Your task to perform on an android device: Search for Italian restaurants on Maps Image 0: 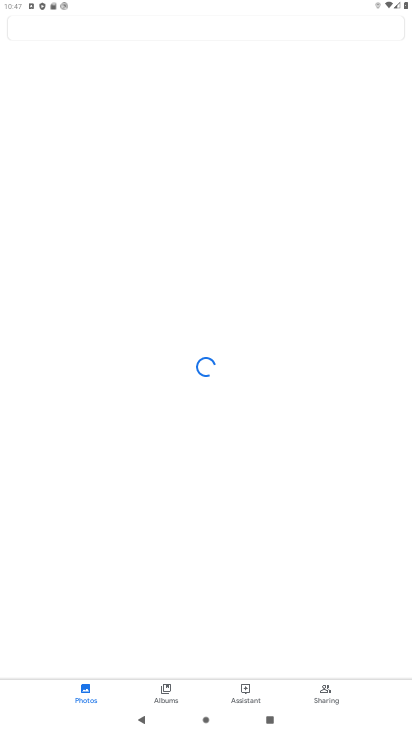
Step 0: press home button
Your task to perform on an android device: Search for Italian restaurants on Maps Image 1: 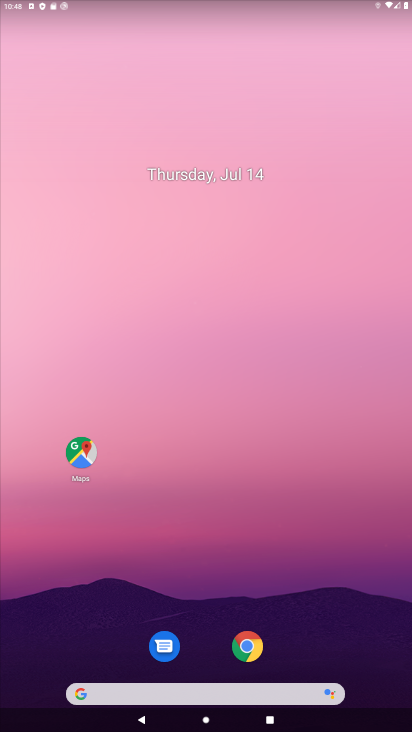
Step 1: click (99, 462)
Your task to perform on an android device: Search for Italian restaurants on Maps Image 2: 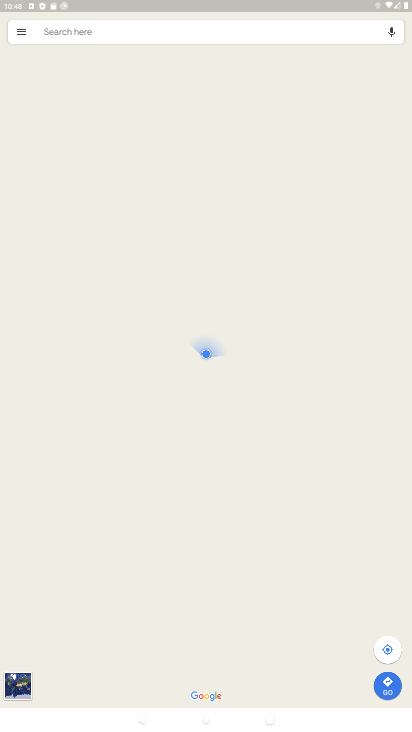
Step 2: click (114, 40)
Your task to perform on an android device: Search for Italian restaurants on Maps Image 3: 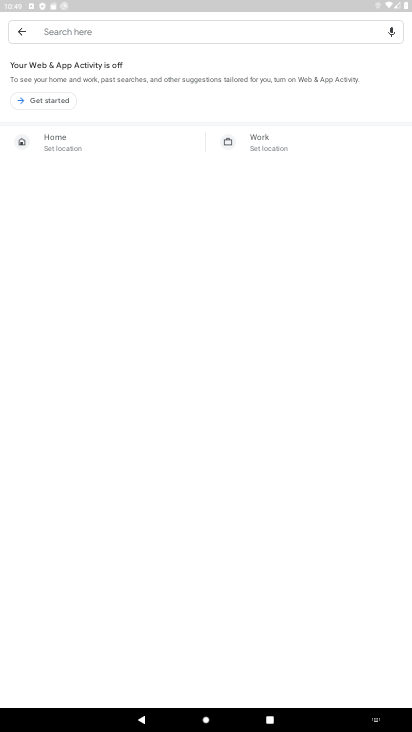
Step 3: click (18, 30)
Your task to perform on an android device: Search for Italian restaurants on Maps Image 4: 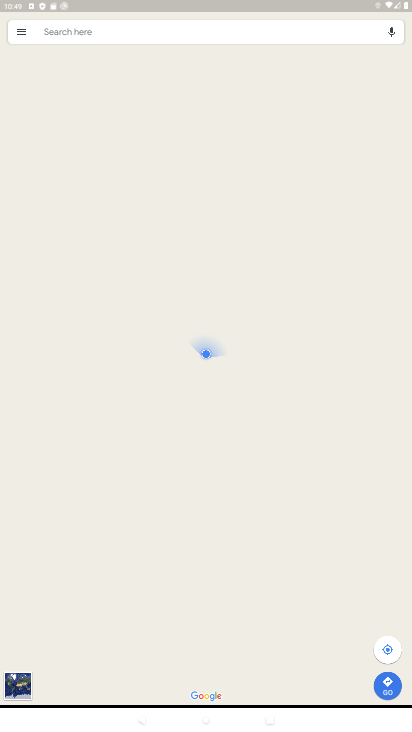
Step 4: click (106, 30)
Your task to perform on an android device: Search for Italian restaurants on Maps Image 5: 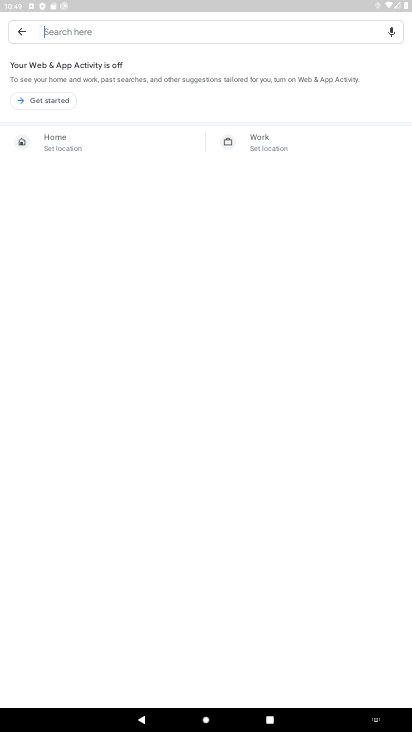
Step 5: type "Italian restaurants"
Your task to perform on an android device: Search for Italian restaurants on Maps Image 6: 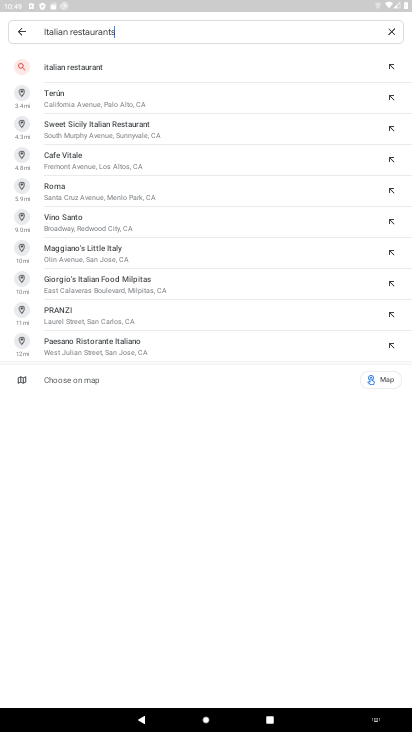
Step 6: click (83, 68)
Your task to perform on an android device: Search for Italian restaurants on Maps Image 7: 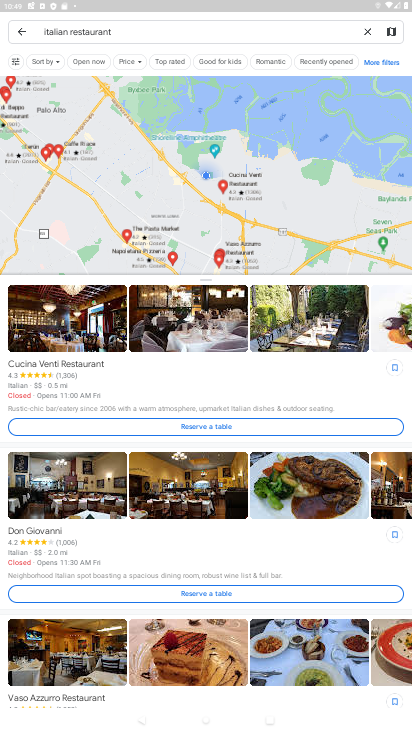
Step 7: task complete